Your task to perform on an android device: Turn on the flashlight Image 0: 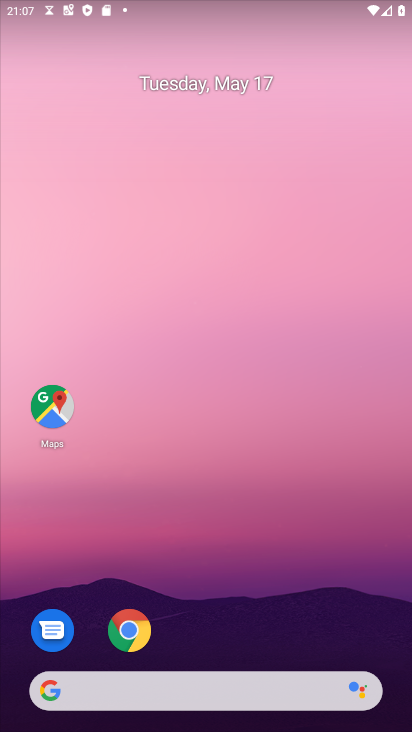
Step 0: drag from (220, 609) to (174, 11)
Your task to perform on an android device: Turn on the flashlight Image 1: 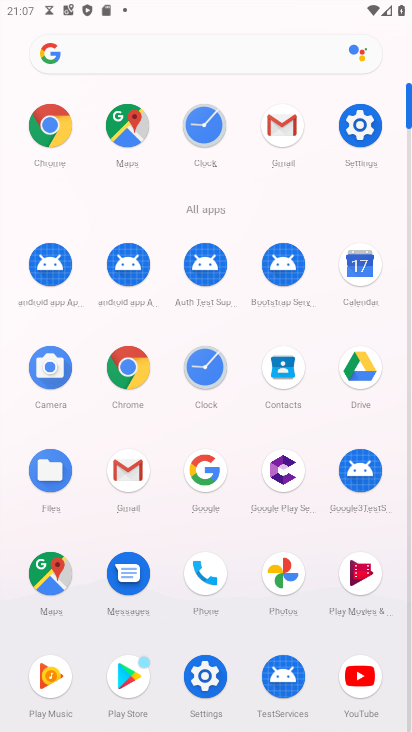
Step 1: click (359, 131)
Your task to perform on an android device: Turn on the flashlight Image 2: 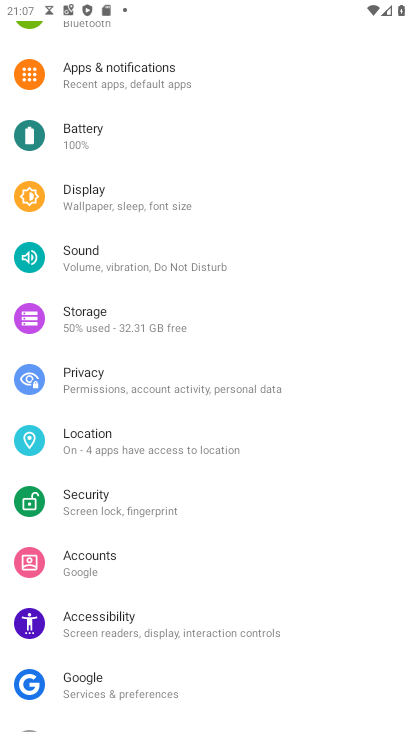
Step 2: drag from (180, 136) to (151, 461)
Your task to perform on an android device: Turn on the flashlight Image 3: 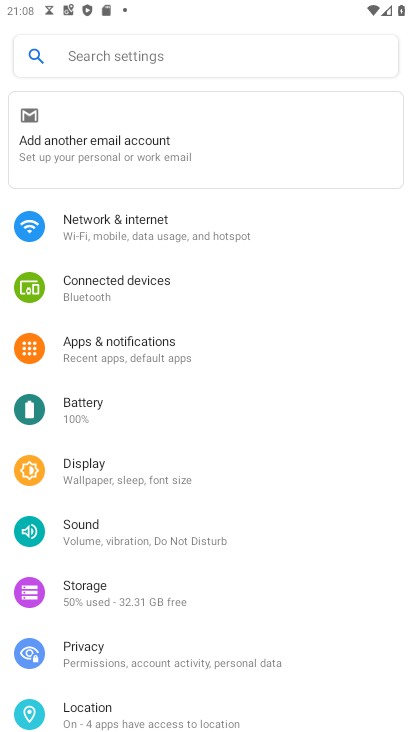
Step 3: click (162, 56)
Your task to perform on an android device: Turn on the flashlight Image 4: 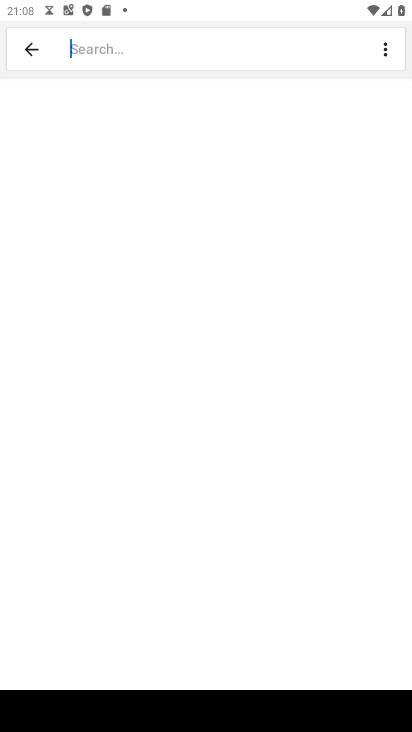
Step 4: type "flashlight"
Your task to perform on an android device: Turn on the flashlight Image 5: 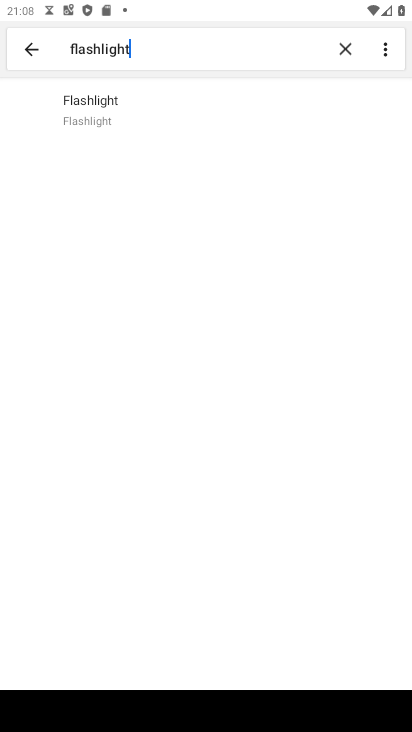
Step 5: click (111, 103)
Your task to perform on an android device: Turn on the flashlight Image 6: 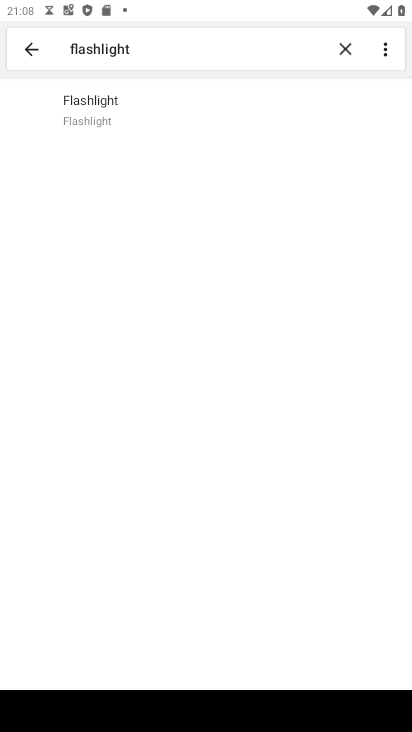
Step 6: click (99, 107)
Your task to perform on an android device: Turn on the flashlight Image 7: 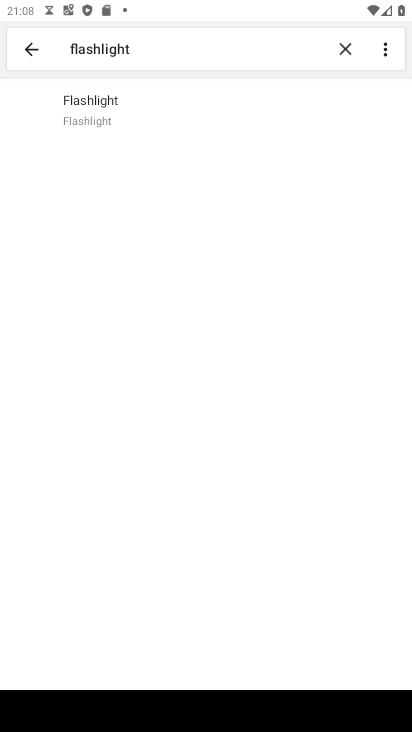
Step 7: click (87, 120)
Your task to perform on an android device: Turn on the flashlight Image 8: 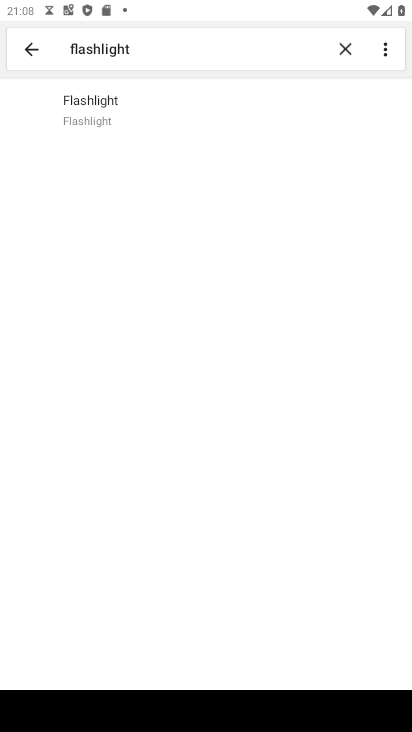
Step 8: task complete